Your task to perform on an android device: Open sound settings Image 0: 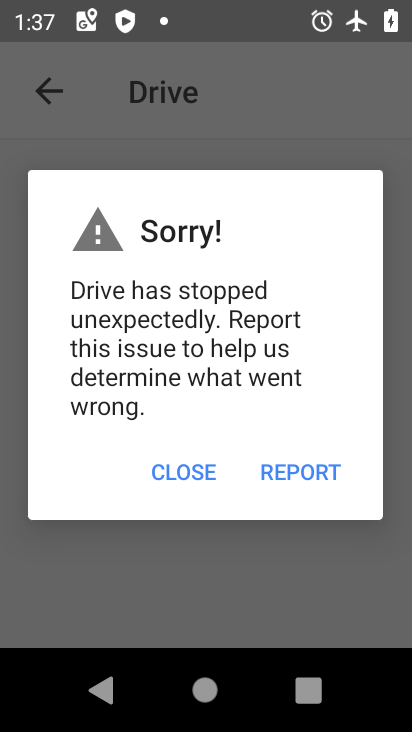
Step 0: press home button
Your task to perform on an android device: Open sound settings Image 1: 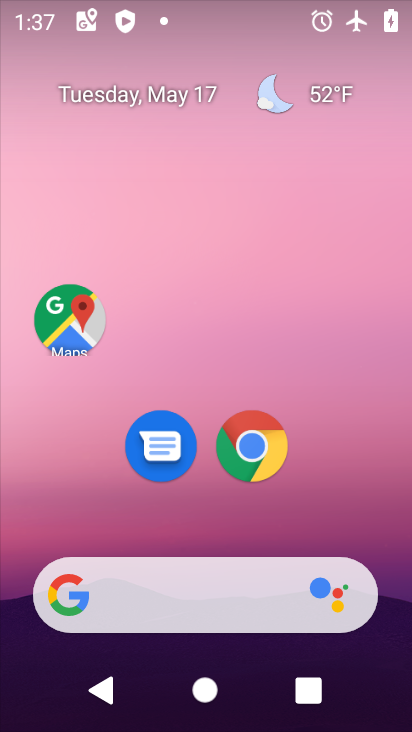
Step 1: drag from (179, 541) to (218, 263)
Your task to perform on an android device: Open sound settings Image 2: 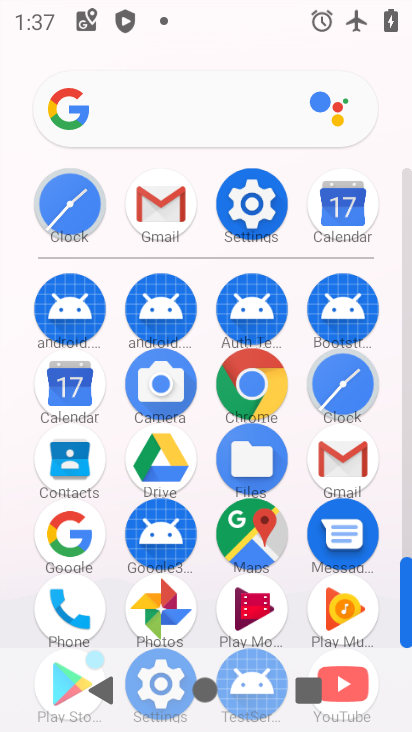
Step 2: click (247, 203)
Your task to perform on an android device: Open sound settings Image 3: 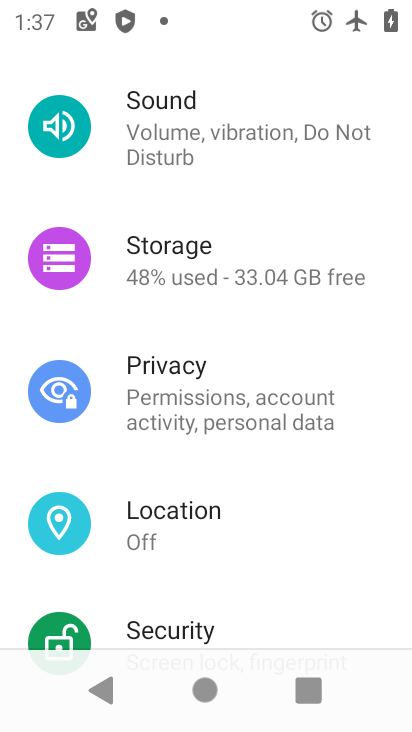
Step 3: click (239, 129)
Your task to perform on an android device: Open sound settings Image 4: 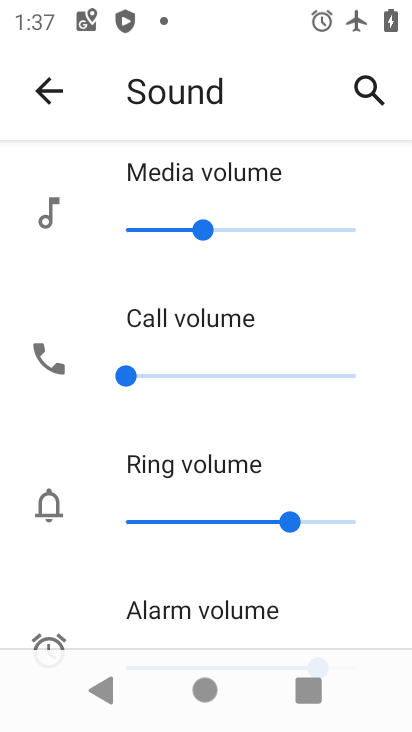
Step 4: task complete